Your task to perform on an android device: Turn off the flashlight Image 0: 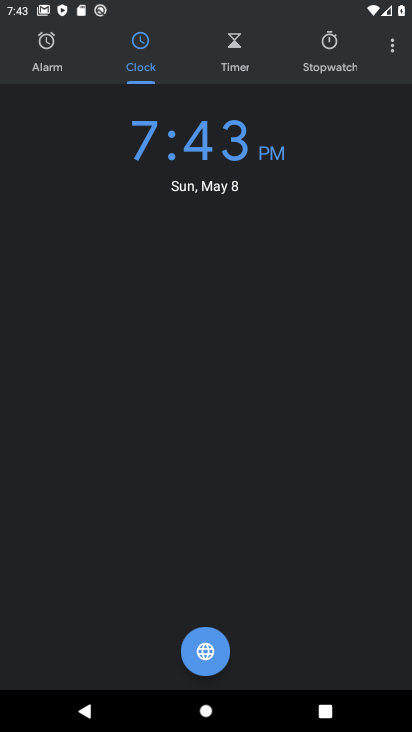
Step 0: press home button
Your task to perform on an android device: Turn off the flashlight Image 1: 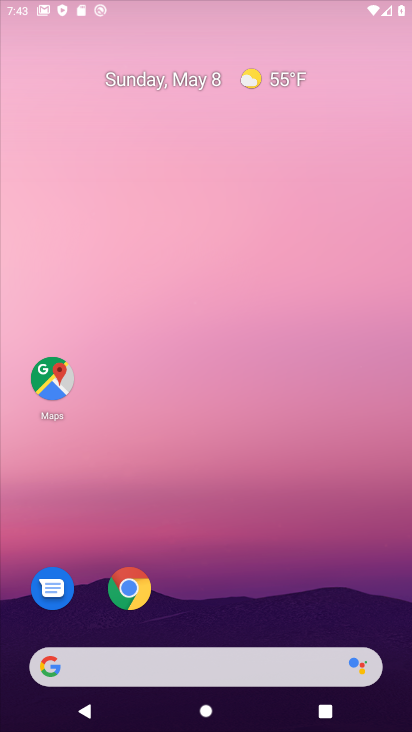
Step 1: drag from (348, 597) to (245, 26)
Your task to perform on an android device: Turn off the flashlight Image 2: 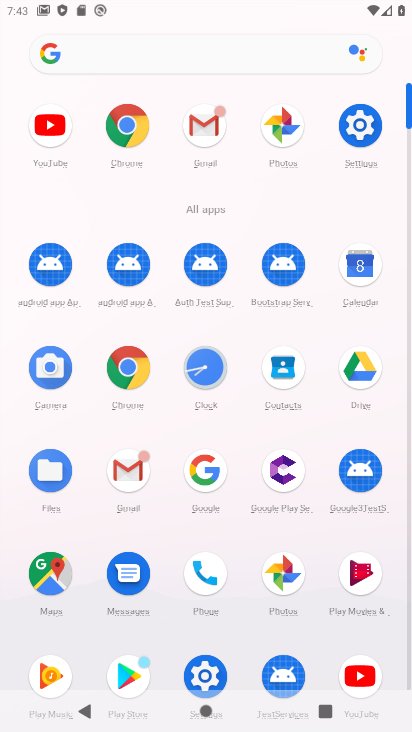
Step 2: click (371, 140)
Your task to perform on an android device: Turn off the flashlight Image 3: 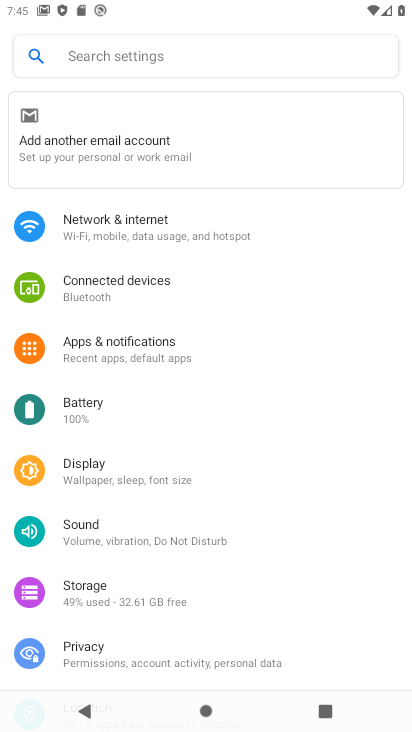
Step 3: task complete